Your task to perform on an android device: Go to Google Image 0: 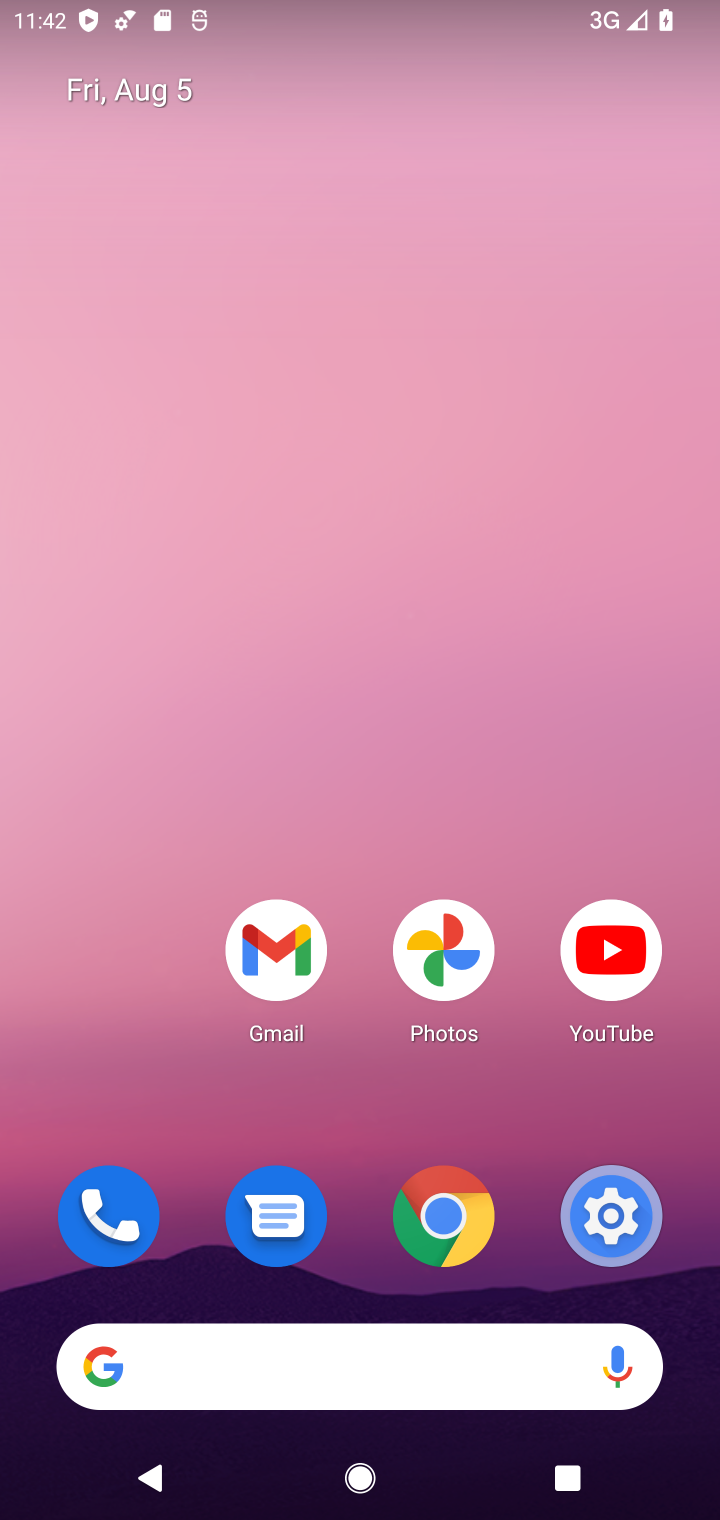
Step 0: drag from (489, 1351) to (335, 430)
Your task to perform on an android device: Go to Google Image 1: 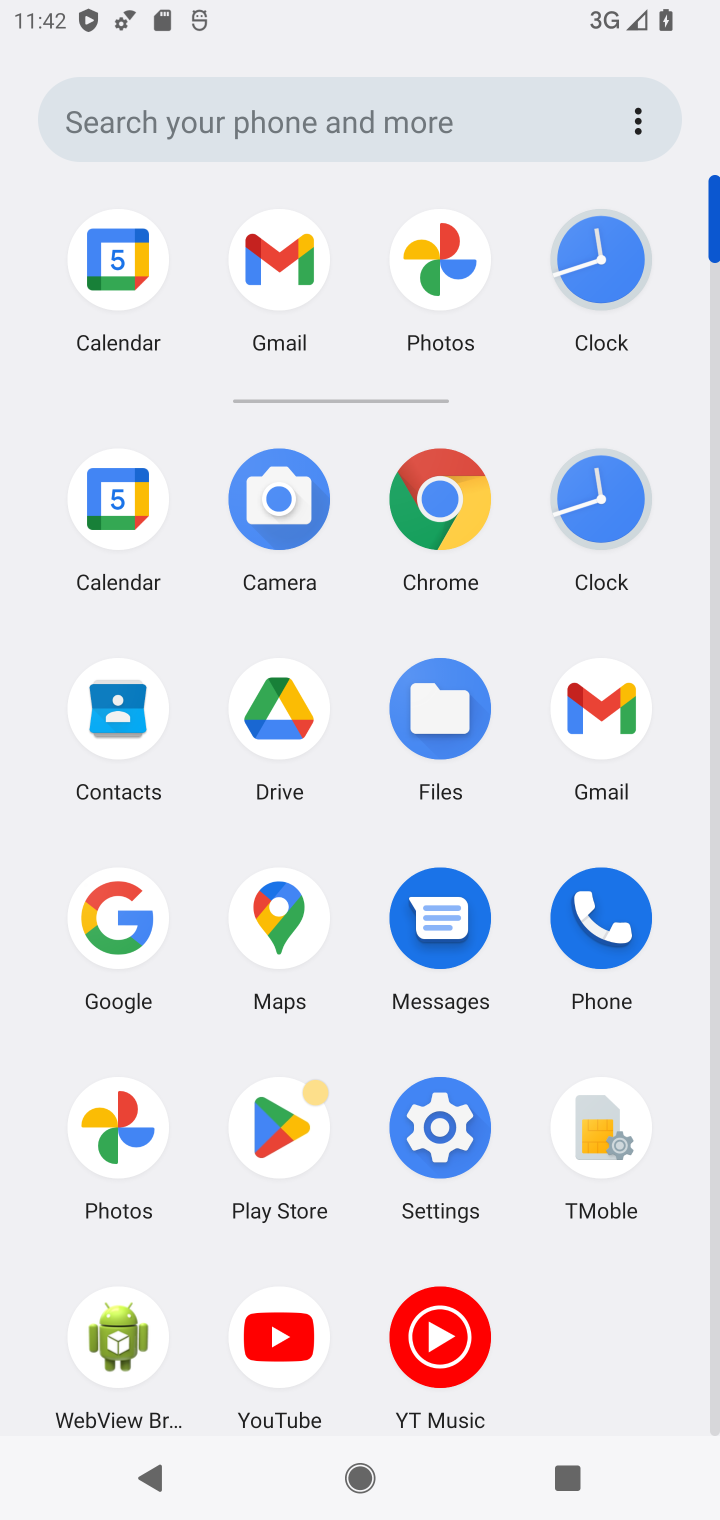
Step 1: click (440, 505)
Your task to perform on an android device: Go to Google Image 2: 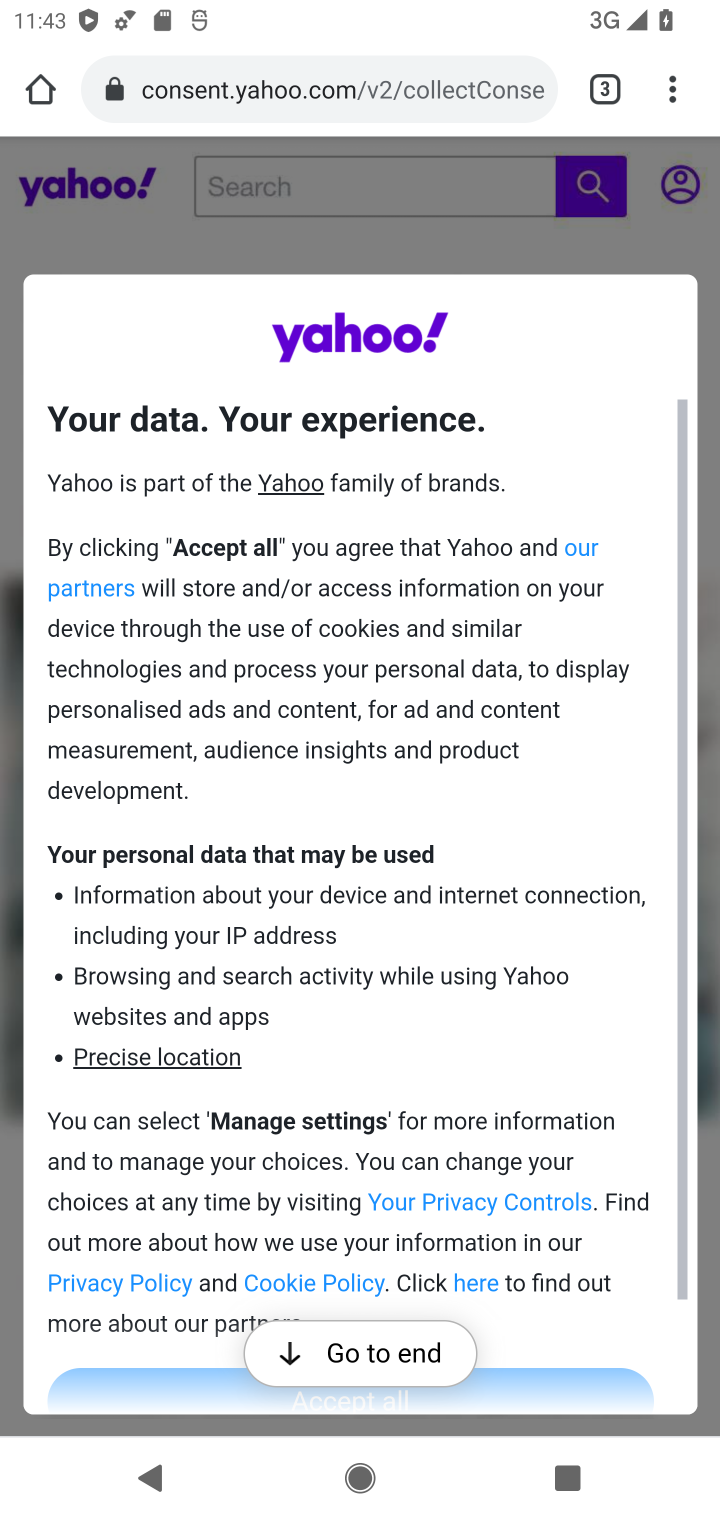
Step 2: click (670, 74)
Your task to perform on an android device: Go to Google Image 3: 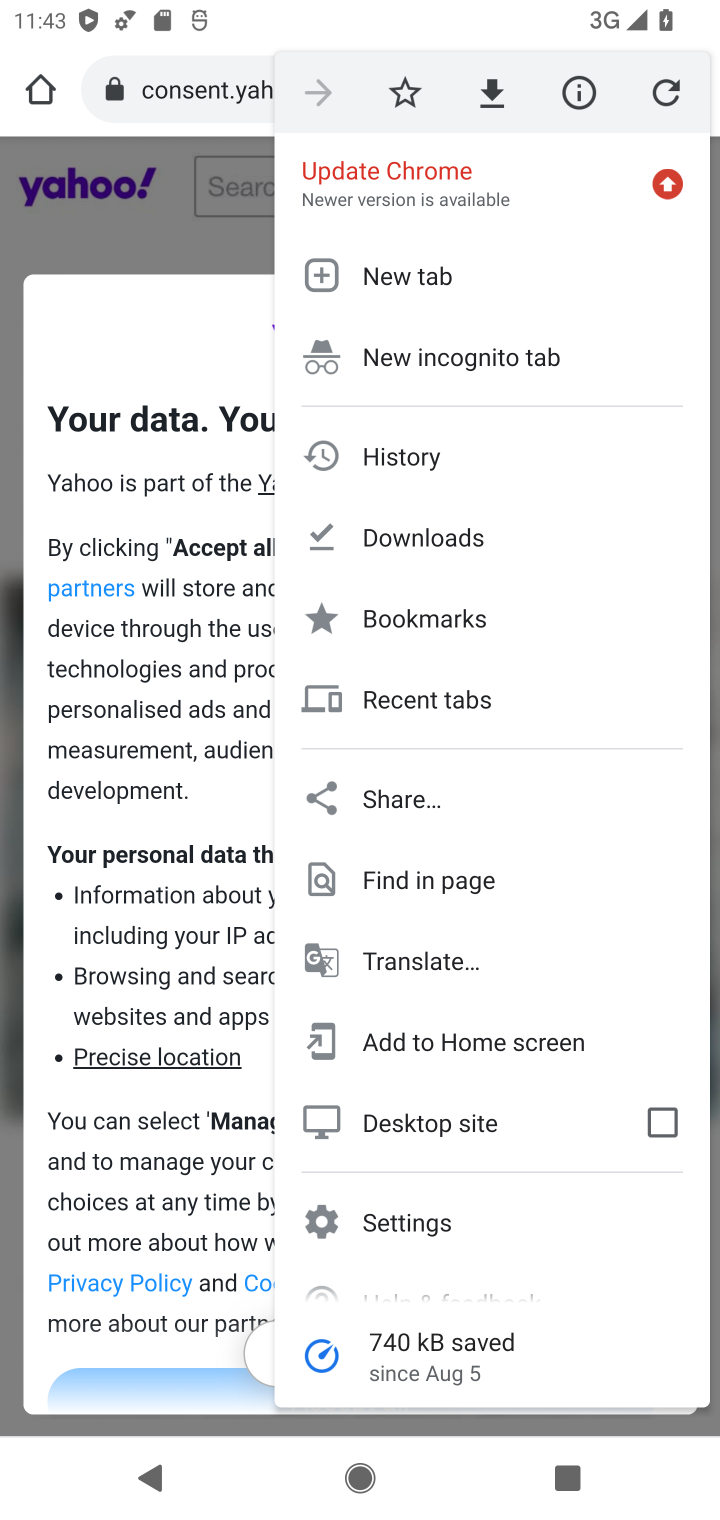
Step 3: click (424, 274)
Your task to perform on an android device: Go to Google Image 4: 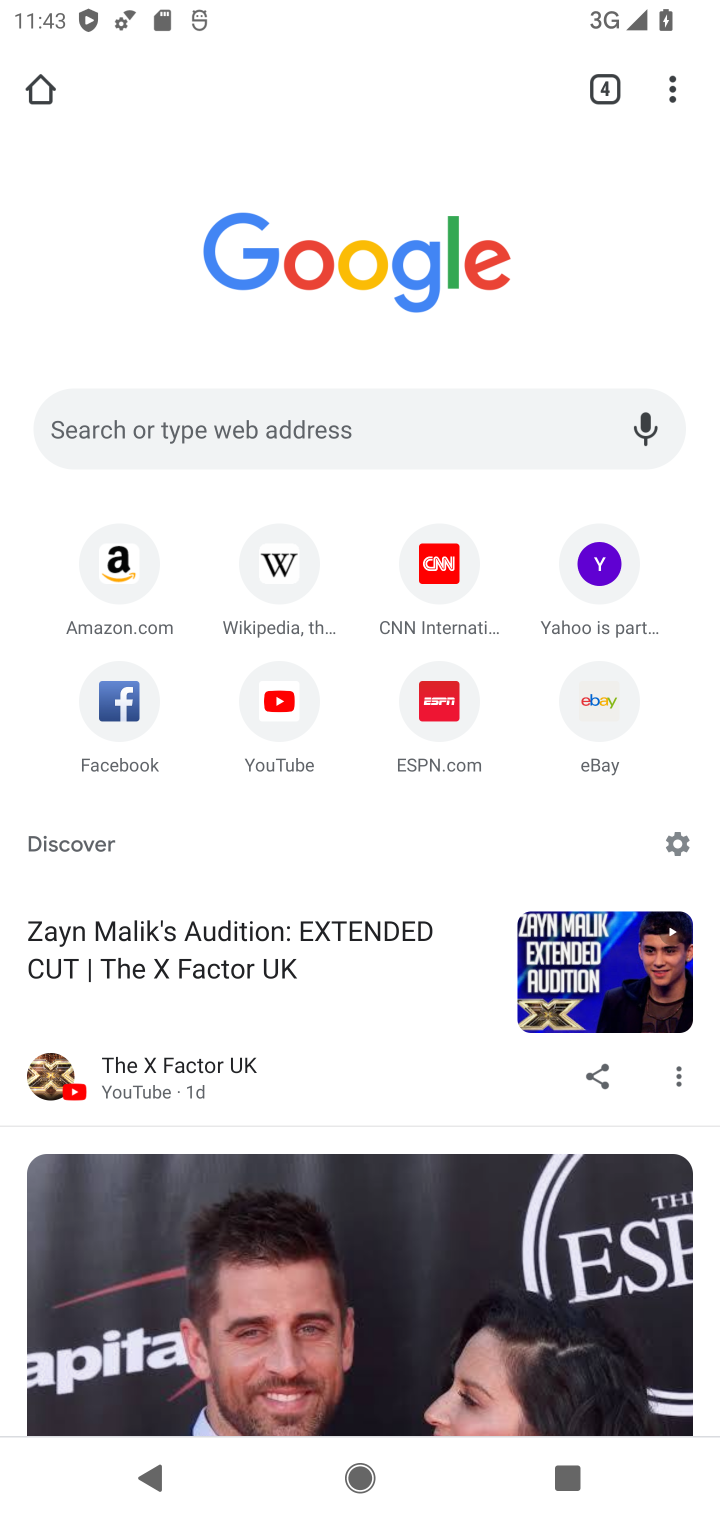
Step 4: task complete